Your task to perform on an android device: see sites visited before in the chrome app Image 0: 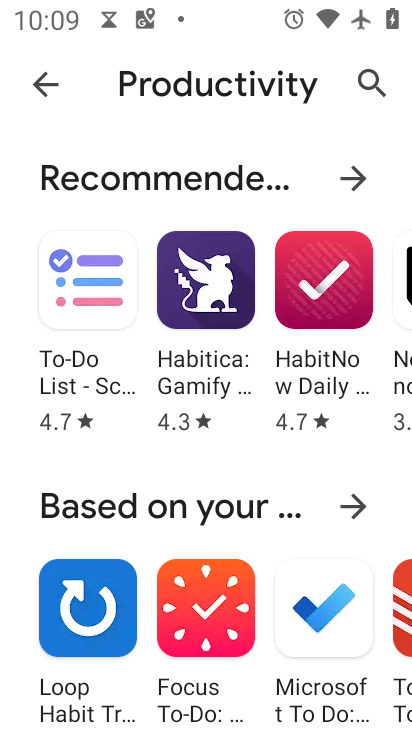
Step 0: press home button
Your task to perform on an android device: see sites visited before in the chrome app Image 1: 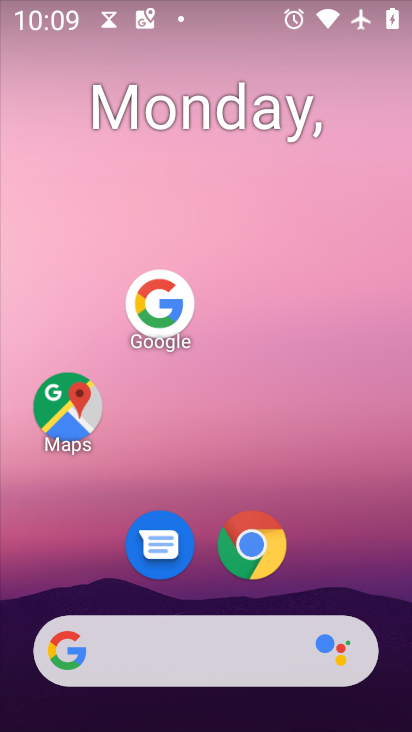
Step 1: click (249, 553)
Your task to perform on an android device: see sites visited before in the chrome app Image 2: 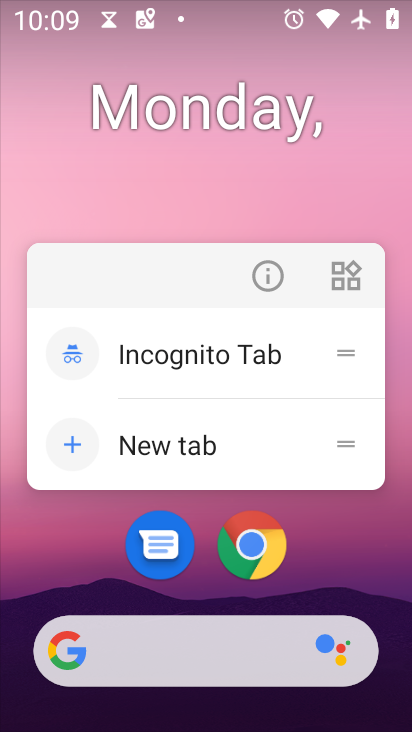
Step 2: click (260, 553)
Your task to perform on an android device: see sites visited before in the chrome app Image 3: 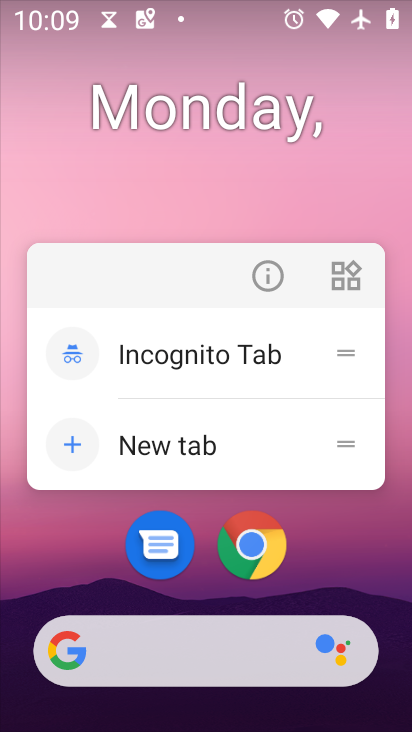
Step 3: click (248, 564)
Your task to perform on an android device: see sites visited before in the chrome app Image 4: 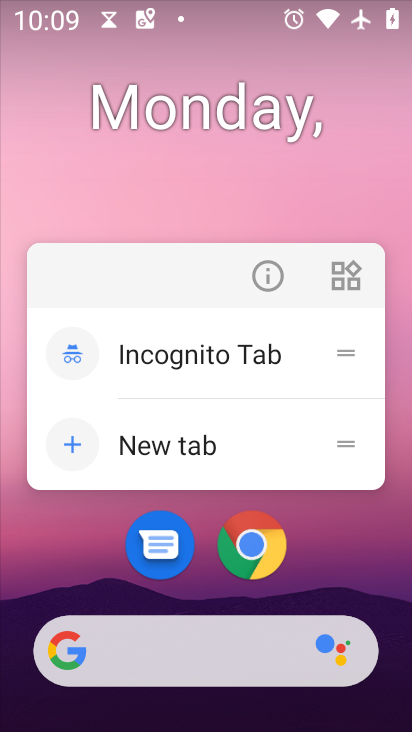
Step 4: click (245, 559)
Your task to perform on an android device: see sites visited before in the chrome app Image 5: 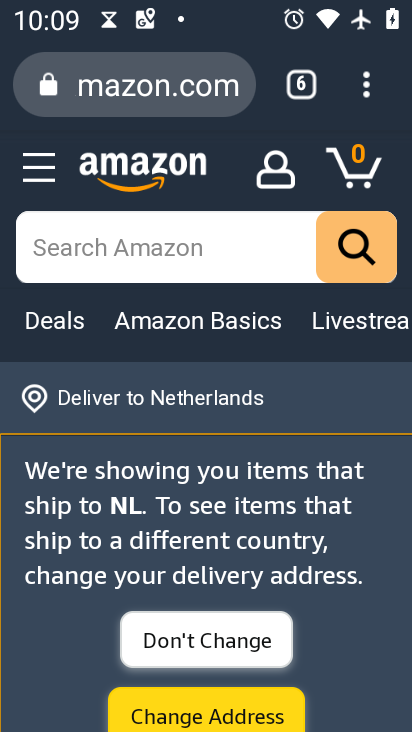
Step 5: task complete